Your task to perform on an android device: Open Google Chrome Image 0: 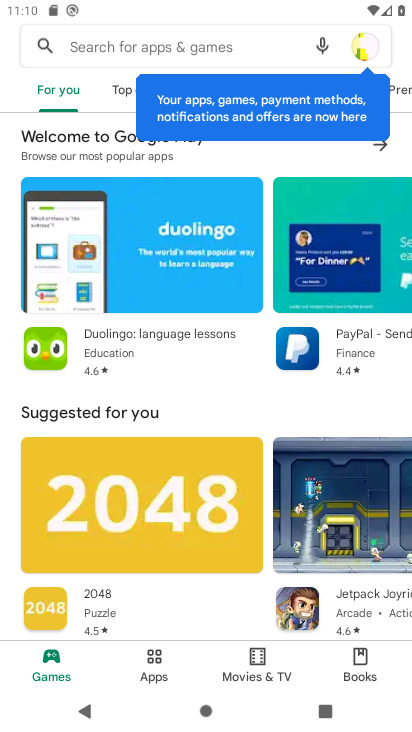
Step 0: press home button
Your task to perform on an android device: Open Google Chrome Image 1: 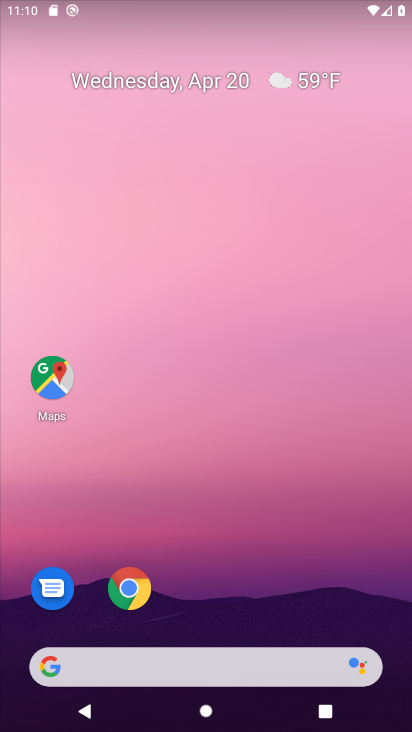
Step 1: click (133, 591)
Your task to perform on an android device: Open Google Chrome Image 2: 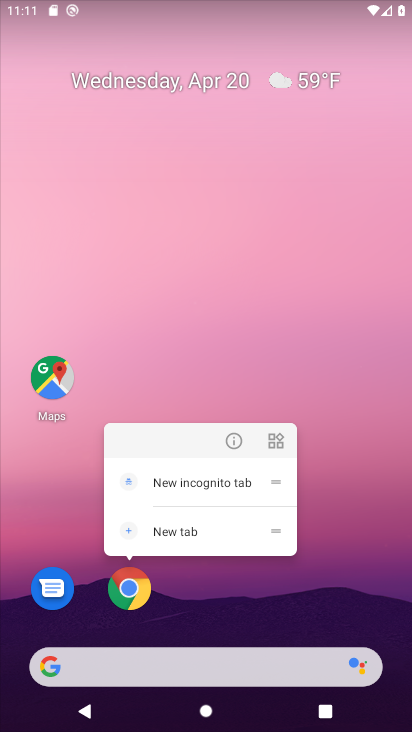
Step 2: click (132, 591)
Your task to perform on an android device: Open Google Chrome Image 3: 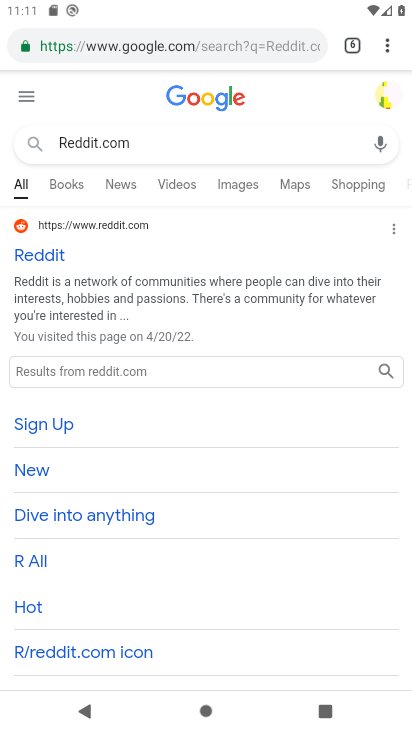
Step 3: task complete